Your task to perform on an android device: When is my next meeting? Image 0: 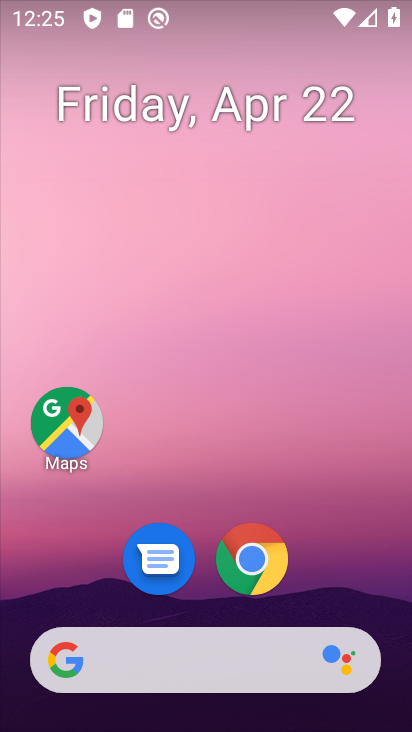
Step 0: drag from (358, 588) to (286, 72)
Your task to perform on an android device: When is my next meeting? Image 1: 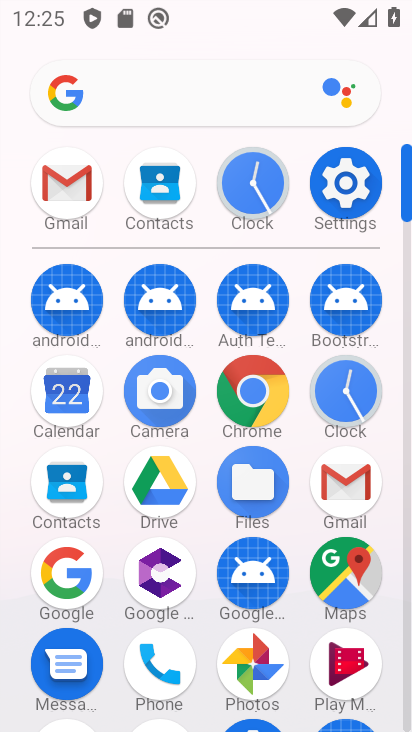
Step 1: click (65, 412)
Your task to perform on an android device: When is my next meeting? Image 2: 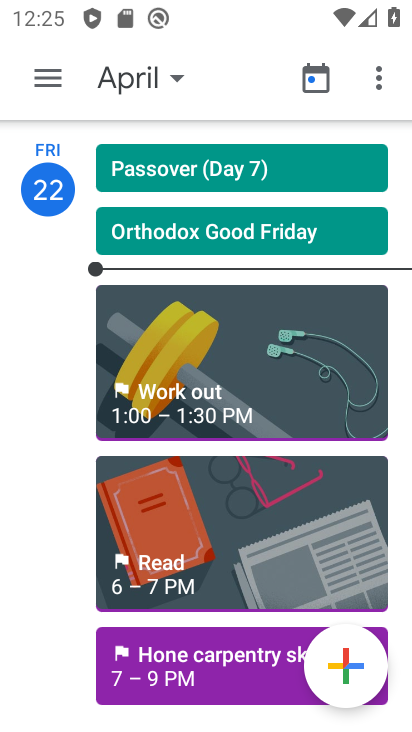
Step 2: click (48, 76)
Your task to perform on an android device: When is my next meeting? Image 3: 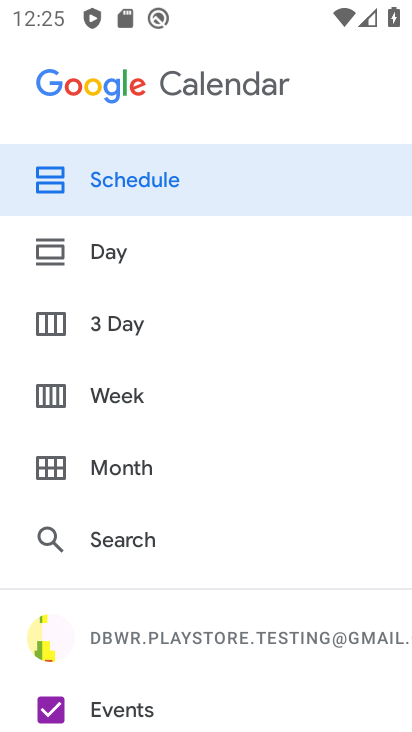
Step 3: click (137, 177)
Your task to perform on an android device: When is my next meeting? Image 4: 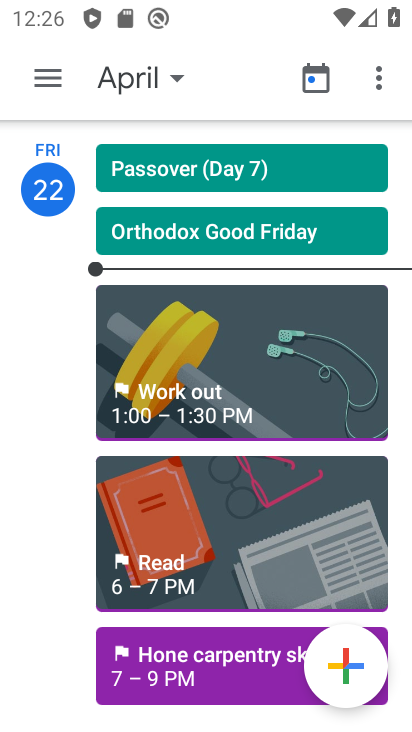
Step 4: drag from (62, 644) to (139, 264)
Your task to perform on an android device: When is my next meeting? Image 5: 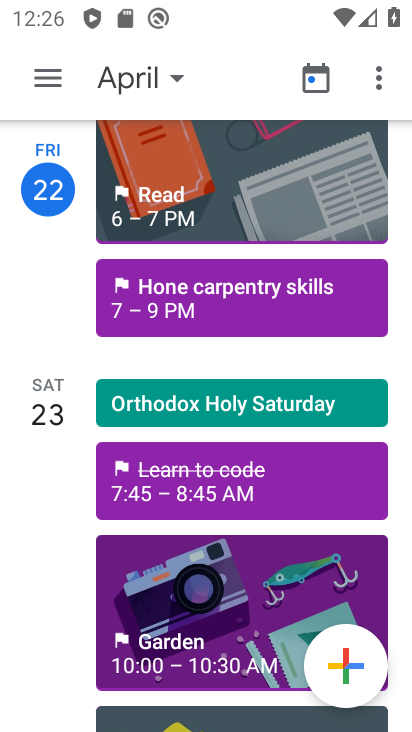
Step 5: click (160, 396)
Your task to perform on an android device: When is my next meeting? Image 6: 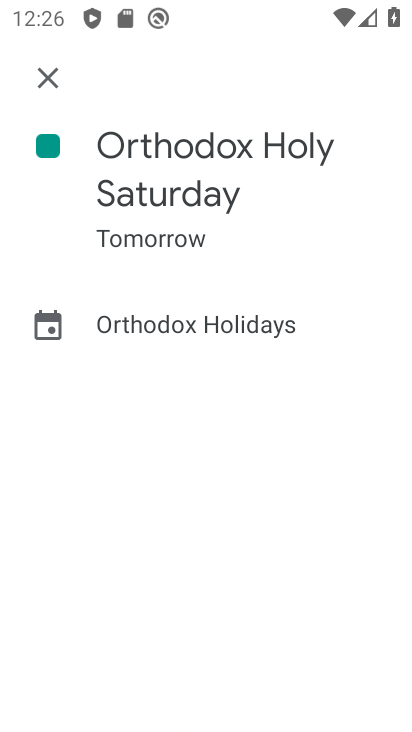
Step 6: task complete